Your task to perform on an android device: find snoozed emails in the gmail app Image 0: 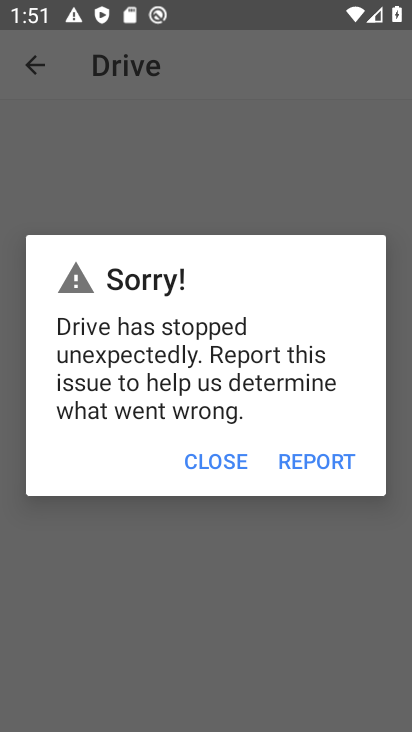
Step 0: press home button
Your task to perform on an android device: find snoozed emails in the gmail app Image 1: 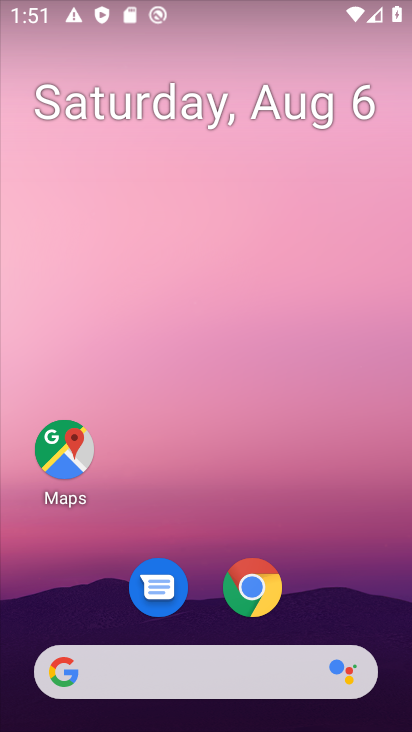
Step 1: drag from (209, 516) to (207, 184)
Your task to perform on an android device: find snoozed emails in the gmail app Image 2: 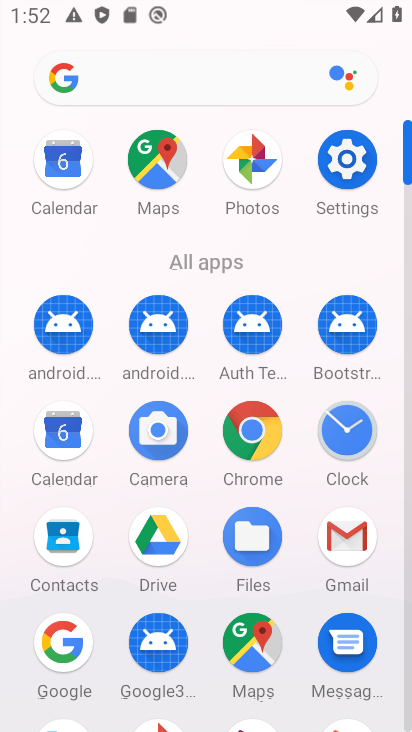
Step 2: click (332, 533)
Your task to perform on an android device: find snoozed emails in the gmail app Image 3: 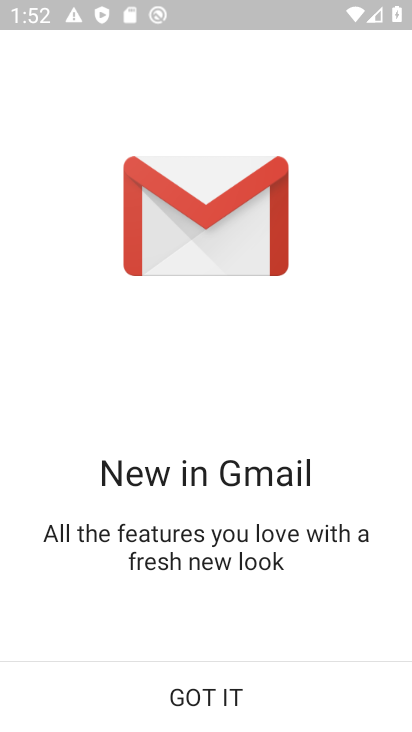
Step 3: click (214, 666)
Your task to perform on an android device: find snoozed emails in the gmail app Image 4: 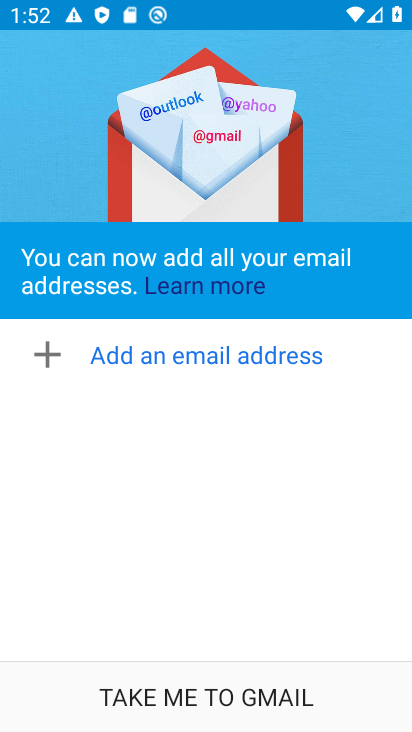
Step 4: click (225, 687)
Your task to perform on an android device: find snoozed emails in the gmail app Image 5: 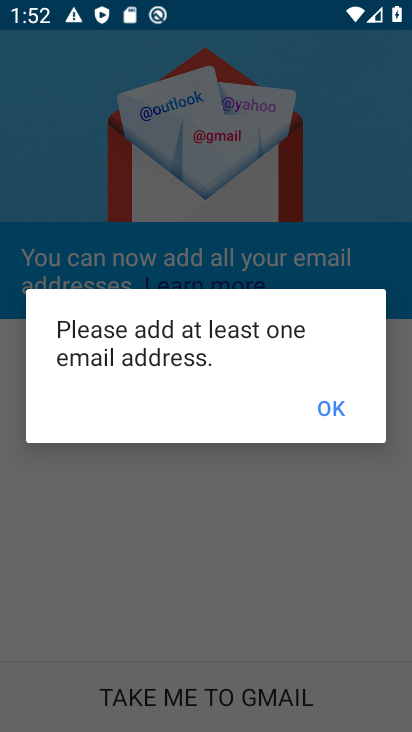
Step 5: task complete